Your task to perform on an android device: Do I have any events today? Image 0: 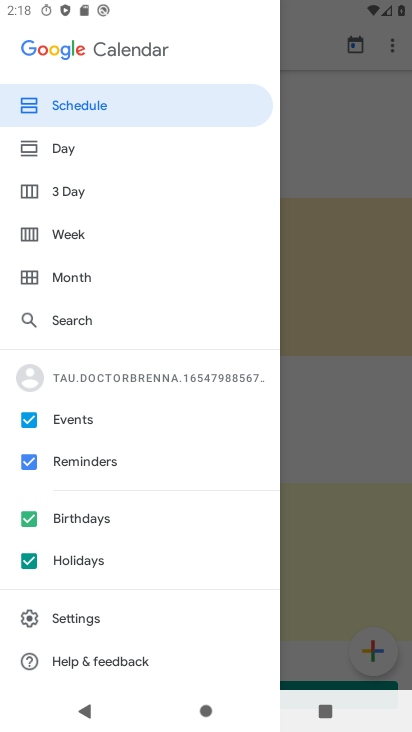
Step 0: press home button
Your task to perform on an android device: Do I have any events today? Image 1: 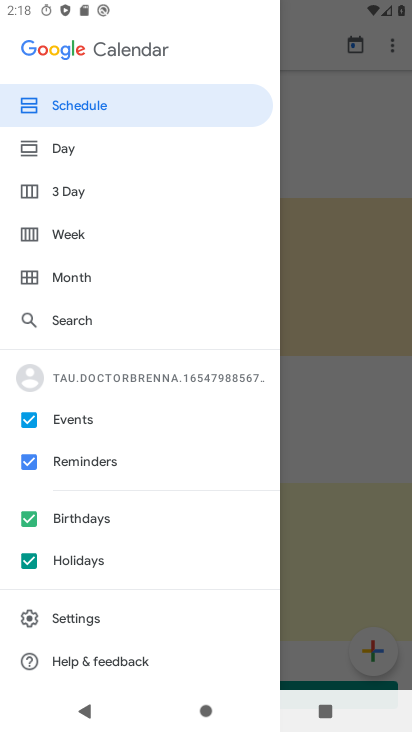
Step 1: press home button
Your task to perform on an android device: Do I have any events today? Image 2: 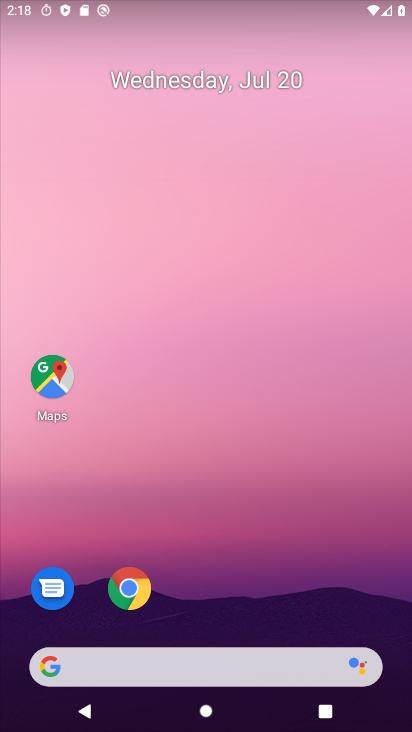
Step 2: drag from (184, 585) to (278, 97)
Your task to perform on an android device: Do I have any events today? Image 3: 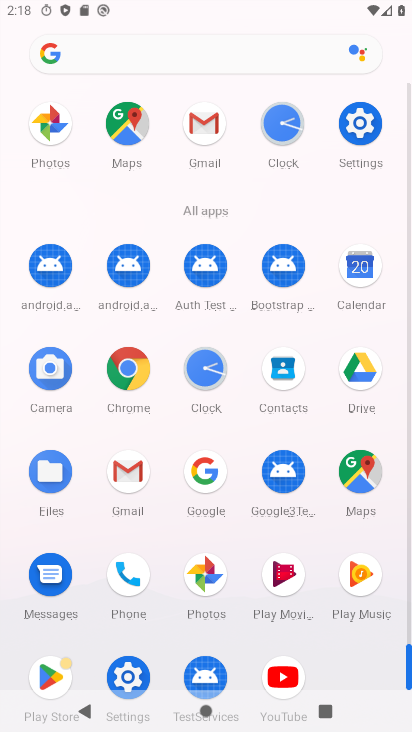
Step 3: click (353, 270)
Your task to perform on an android device: Do I have any events today? Image 4: 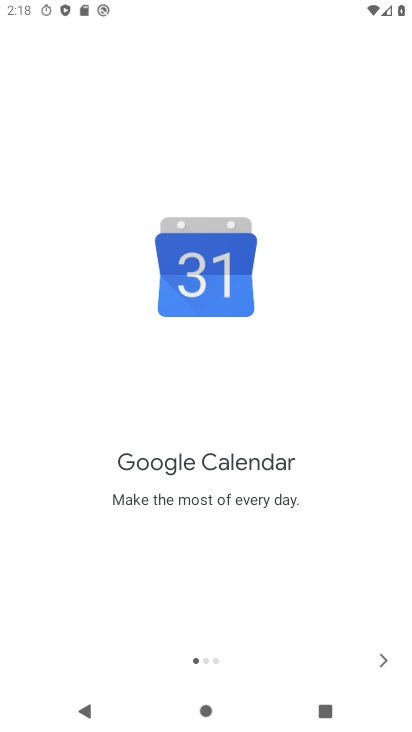
Step 4: click (381, 651)
Your task to perform on an android device: Do I have any events today? Image 5: 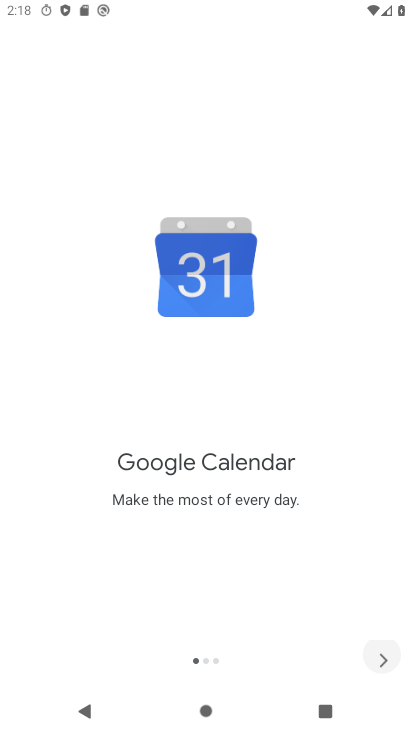
Step 5: click (380, 650)
Your task to perform on an android device: Do I have any events today? Image 6: 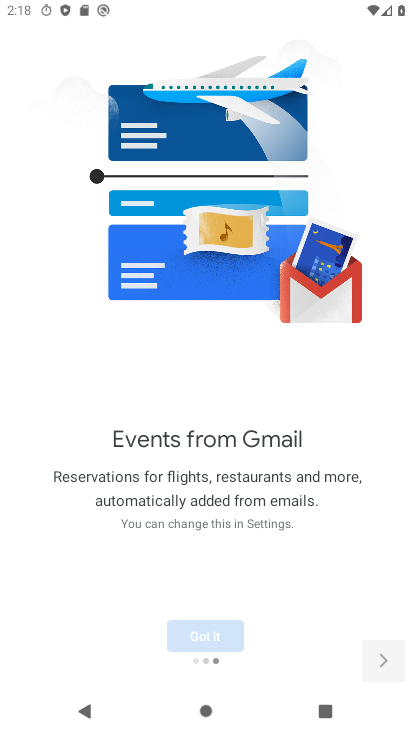
Step 6: click (380, 650)
Your task to perform on an android device: Do I have any events today? Image 7: 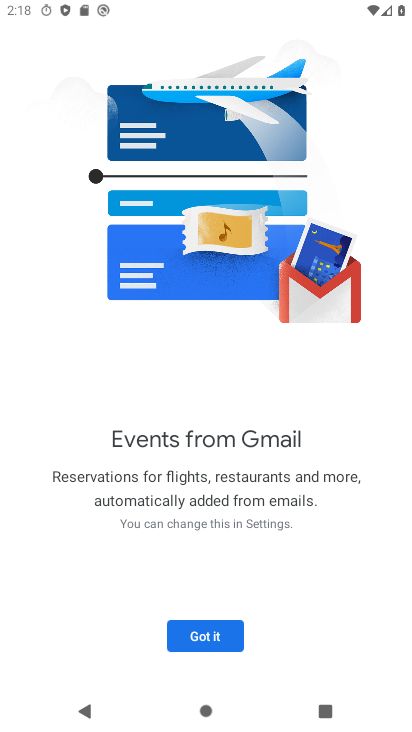
Step 7: click (176, 628)
Your task to perform on an android device: Do I have any events today? Image 8: 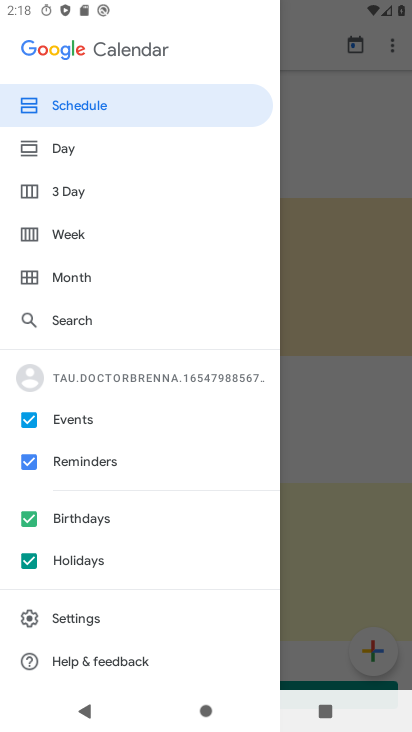
Step 8: click (334, 144)
Your task to perform on an android device: Do I have any events today? Image 9: 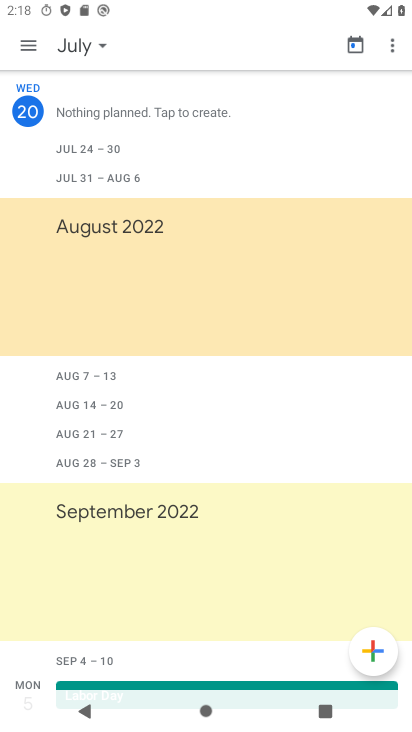
Step 9: click (354, 46)
Your task to perform on an android device: Do I have any events today? Image 10: 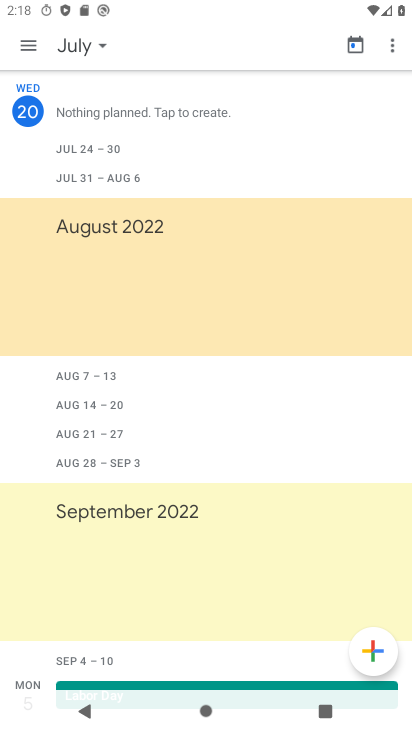
Step 10: click (351, 43)
Your task to perform on an android device: Do I have any events today? Image 11: 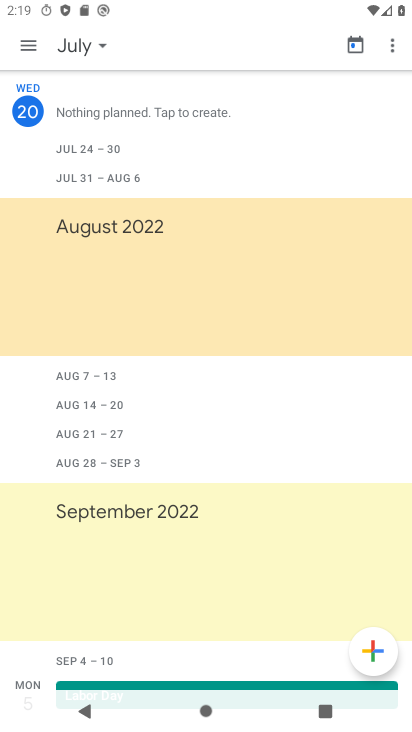
Step 11: task complete